Your task to perform on an android device: change alarm snooze length Image 0: 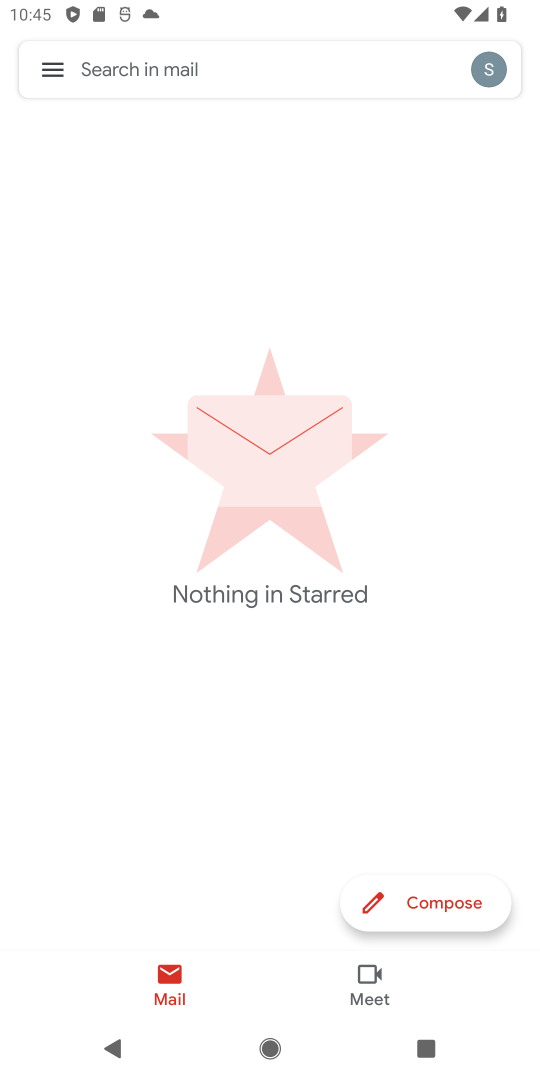
Step 0: press home button
Your task to perform on an android device: change alarm snooze length Image 1: 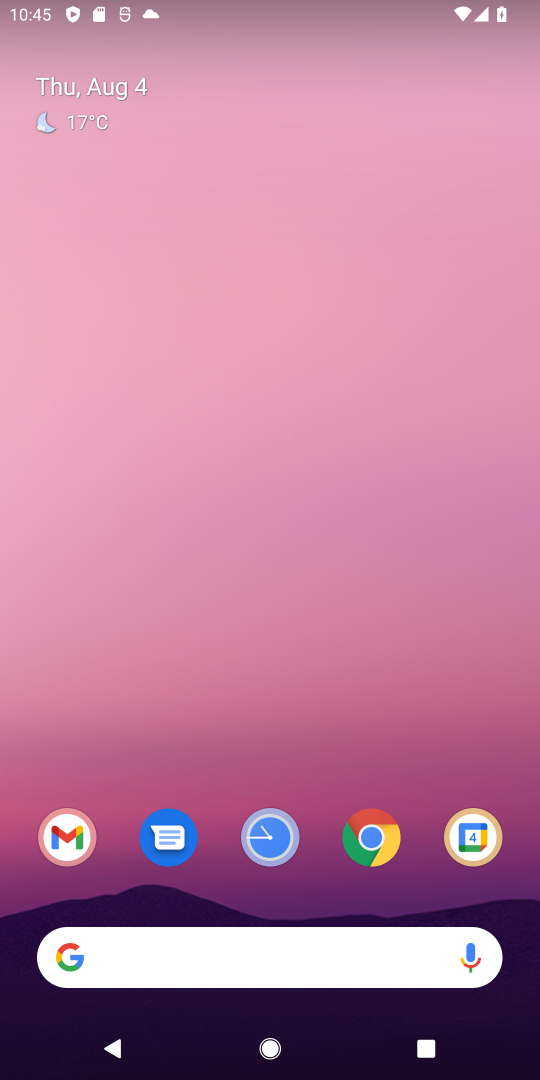
Step 1: drag from (336, 889) to (301, 70)
Your task to perform on an android device: change alarm snooze length Image 2: 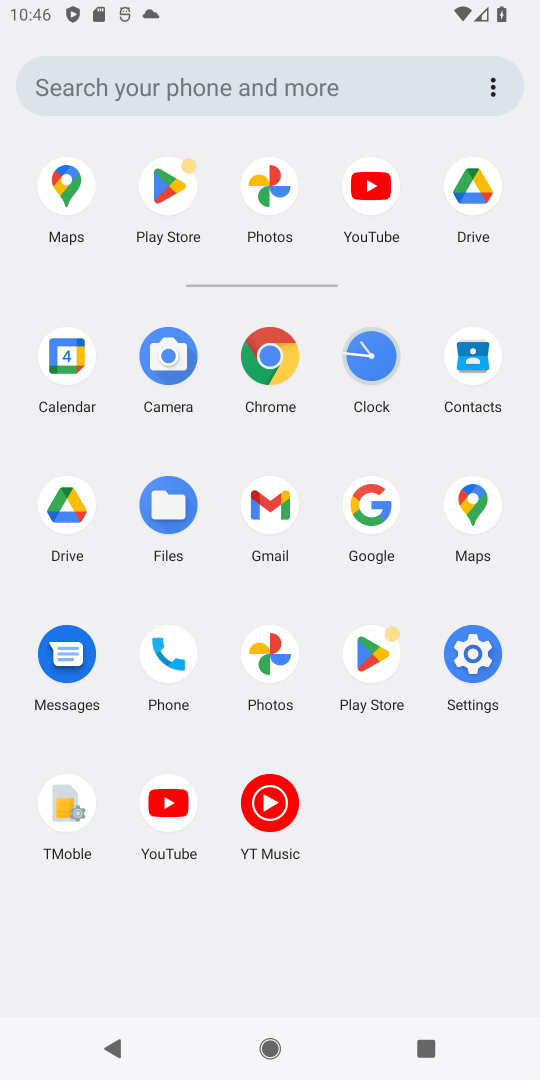
Step 2: click (300, 68)
Your task to perform on an android device: change alarm snooze length Image 3: 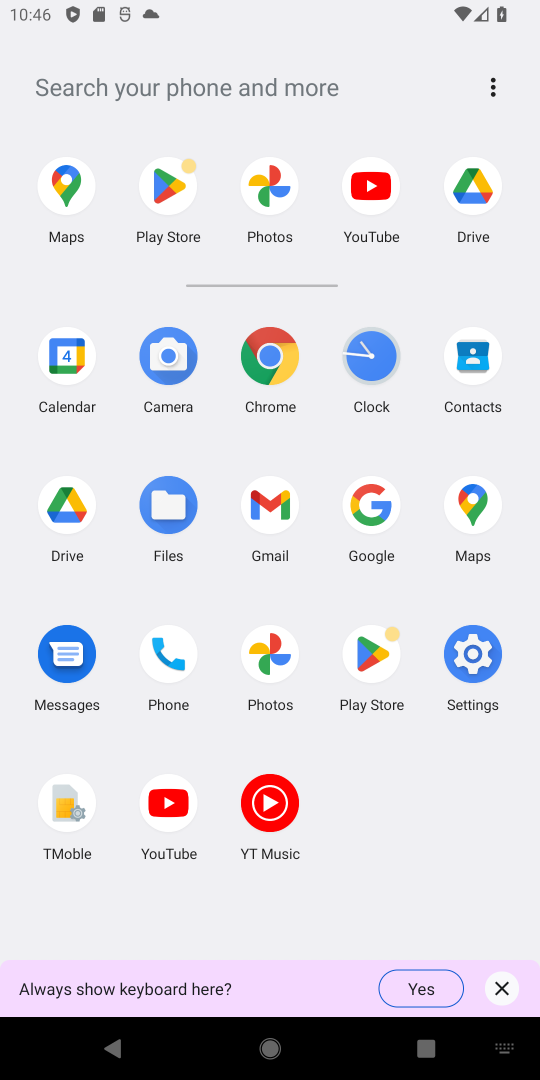
Step 3: click (363, 373)
Your task to perform on an android device: change alarm snooze length Image 4: 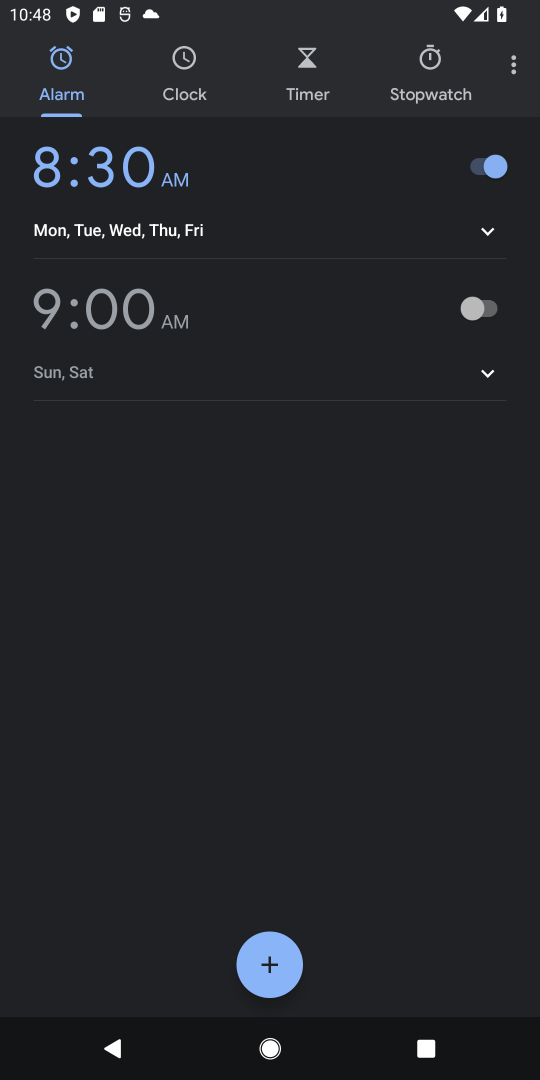
Step 4: click (507, 58)
Your task to perform on an android device: change alarm snooze length Image 5: 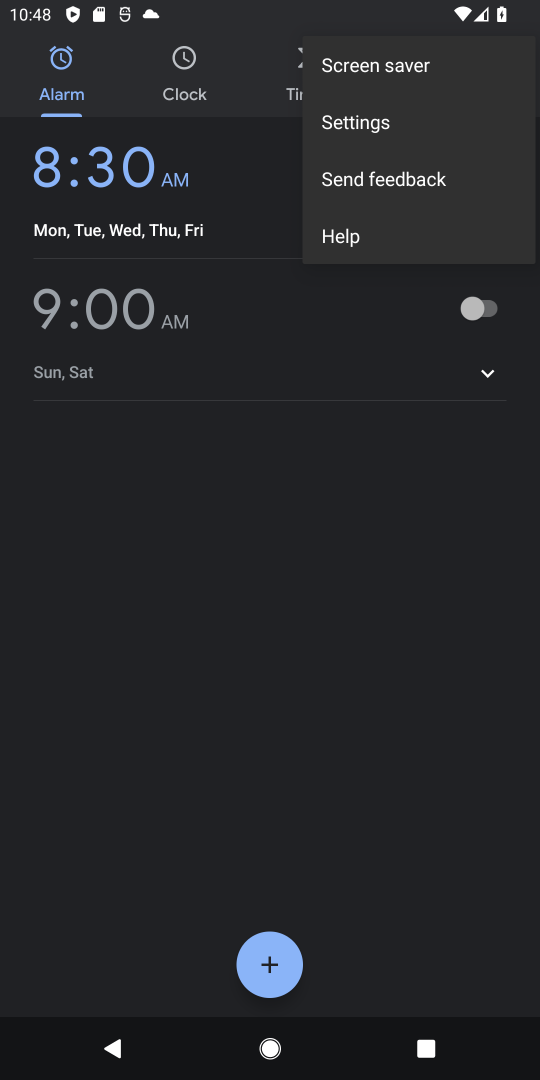
Step 5: click (414, 123)
Your task to perform on an android device: change alarm snooze length Image 6: 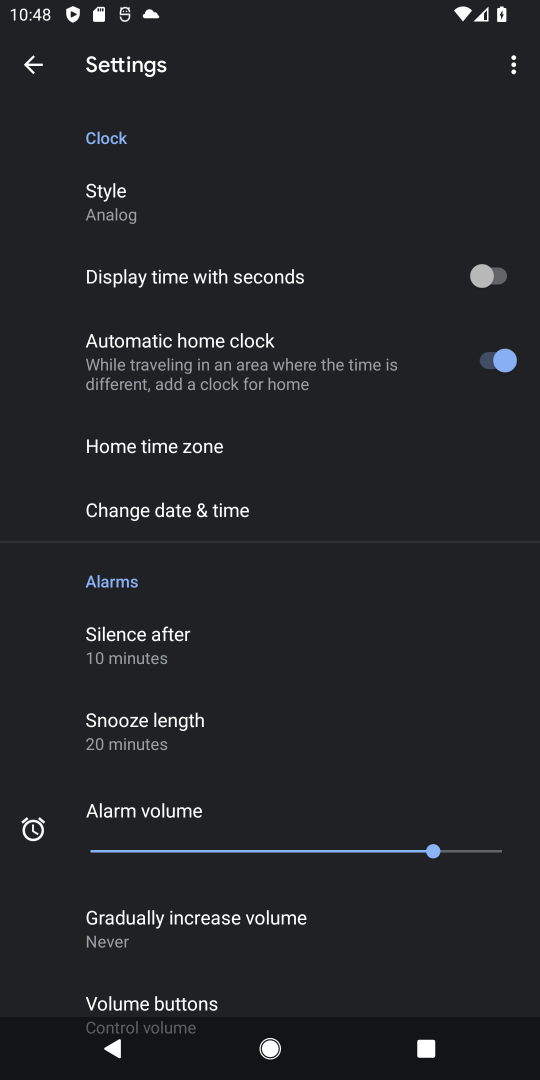
Step 6: click (132, 728)
Your task to perform on an android device: change alarm snooze length Image 7: 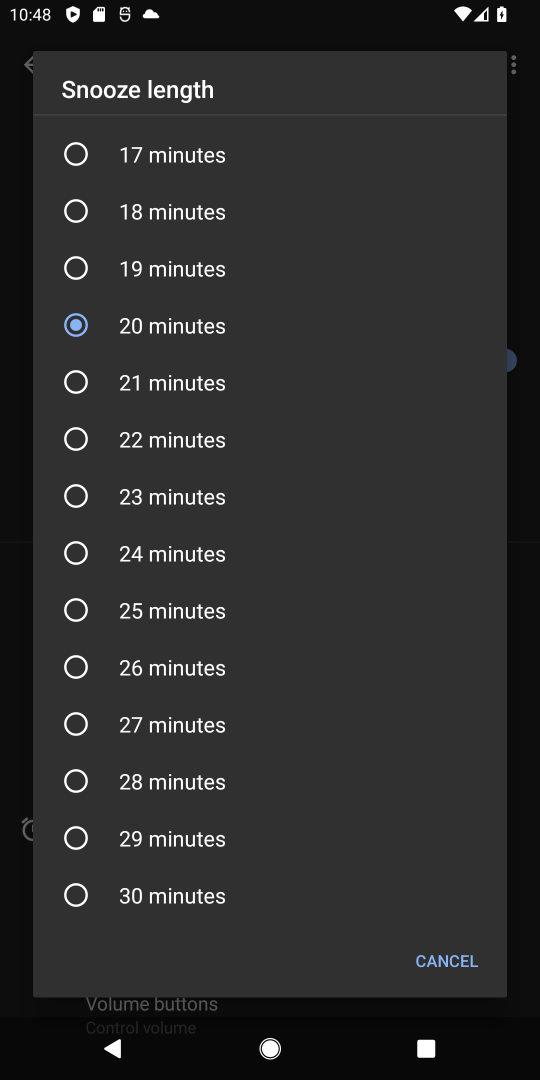
Step 7: click (72, 607)
Your task to perform on an android device: change alarm snooze length Image 8: 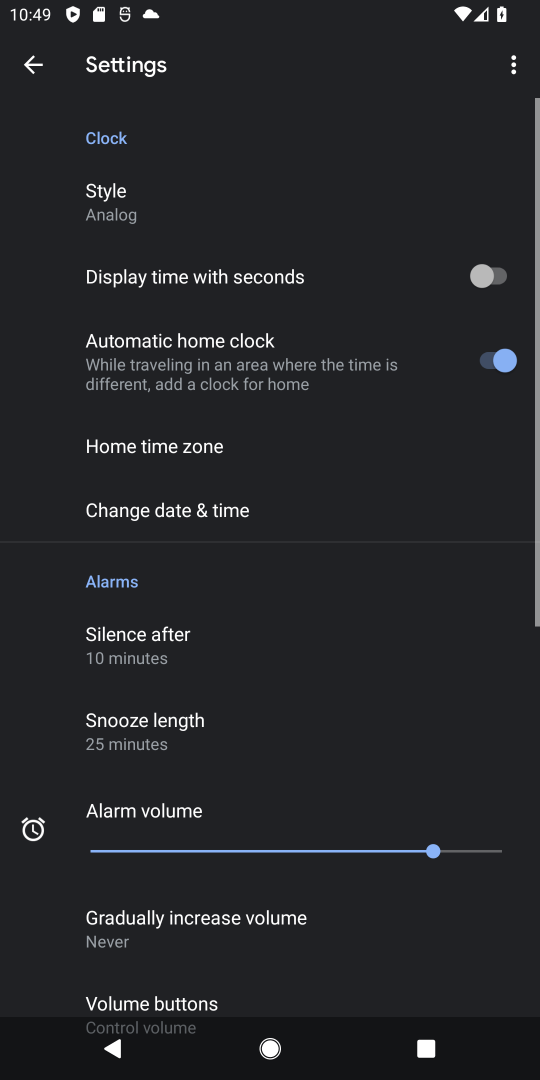
Step 8: task complete